Your task to perform on an android device: Open maps Image 0: 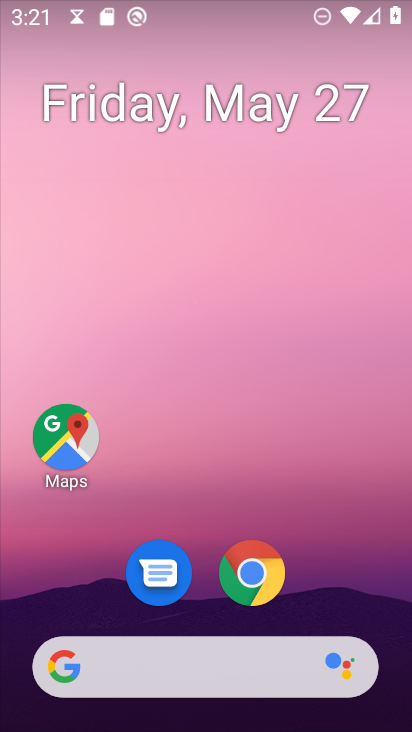
Step 0: click (61, 438)
Your task to perform on an android device: Open maps Image 1: 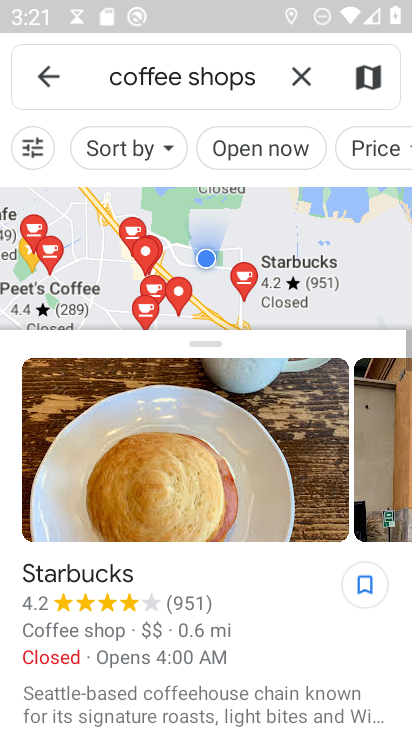
Step 1: click (42, 73)
Your task to perform on an android device: Open maps Image 2: 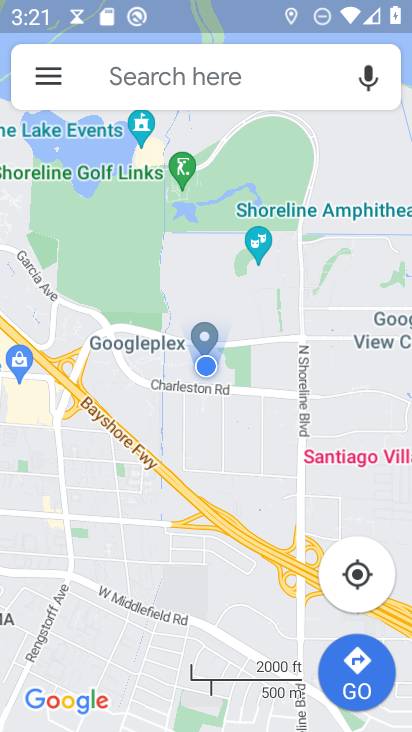
Step 2: task complete